Your task to perform on an android device: Is it going to rain this weekend? Image 0: 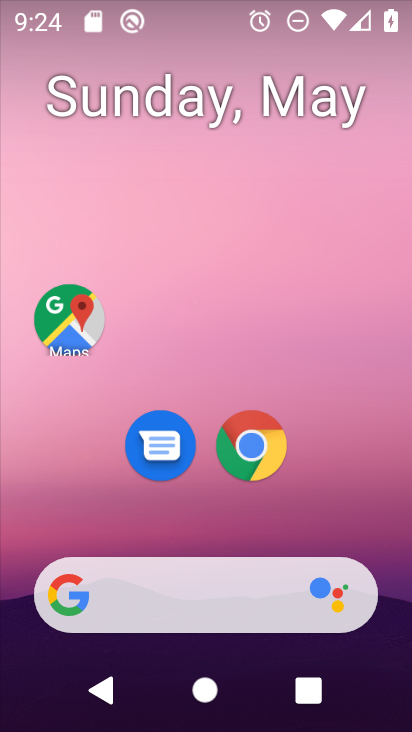
Step 0: drag from (353, 531) to (334, 292)
Your task to perform on an android device: Is it going to rain this weekend? Image 1: 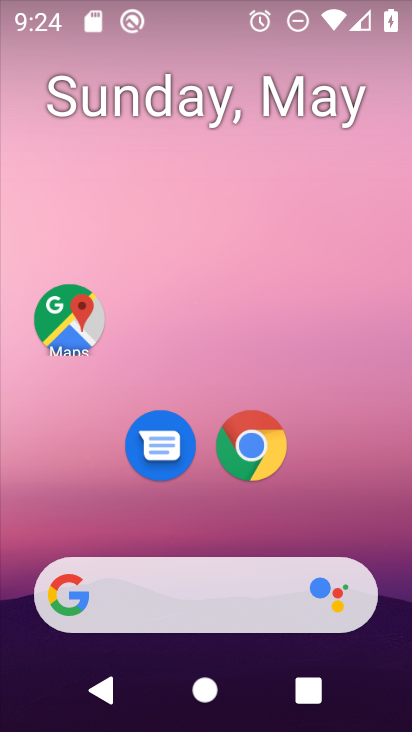
Step 1: drag from (297, 597) to (307, 247)
Your task to perform on an android device: Is it going to rain this weekend? Image 2: 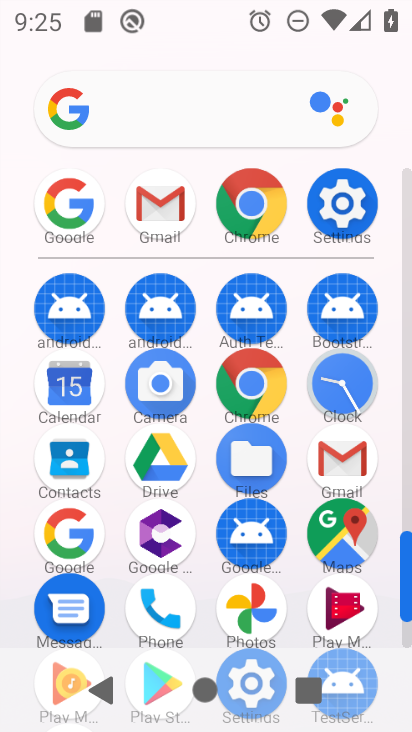
Step 2: click (89, 544)
Your task to perform on an android device: Is it going to rain this weekend? Image 3: 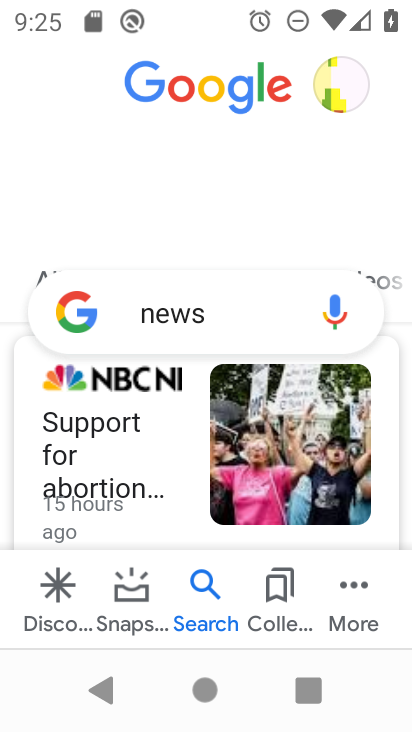
Step 3: click (244, 325)
Your task to perform on an android device: Is it going to rain this weekend? Image 4: 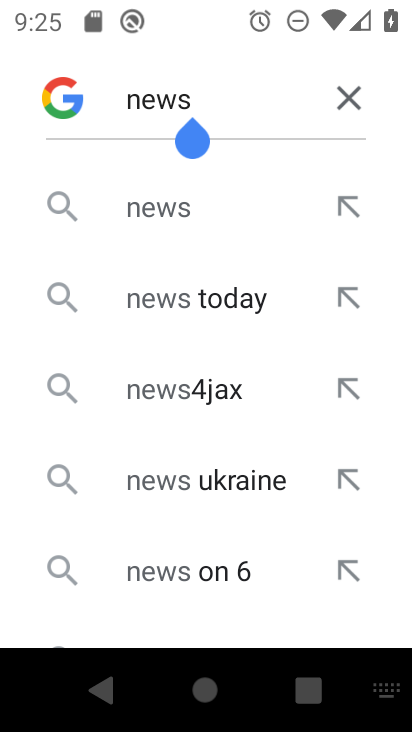
Step 4: click (350, 99)
Your task to perform on an android device: Is it going to rain this weekend? Image 5: 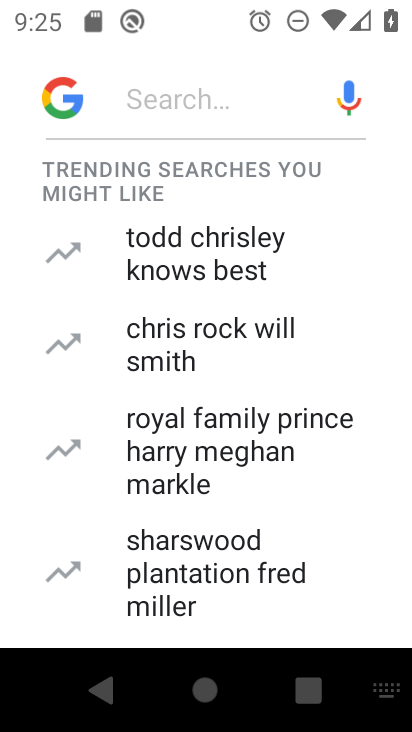
Step 5: type "weather"
Your task to perform on an android device: Is it going to rain this weekend? Image 6: 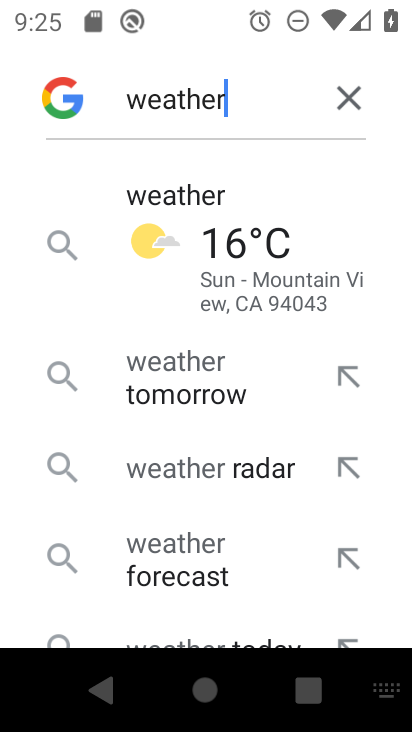
Step 6: click (262, 279)
Your task to perform on an android device: Is it going to rain this weekend? Image 7: 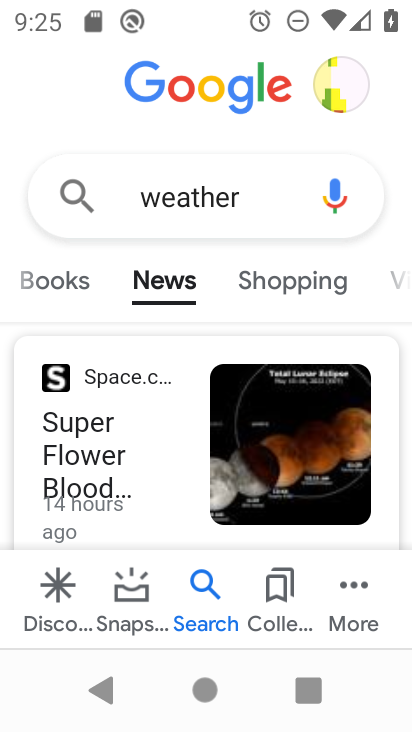
Step 7: drag from (115, 302) to (369, 281)
Your task to perform on an android device: Is it going to rain this weekend? Image 8: 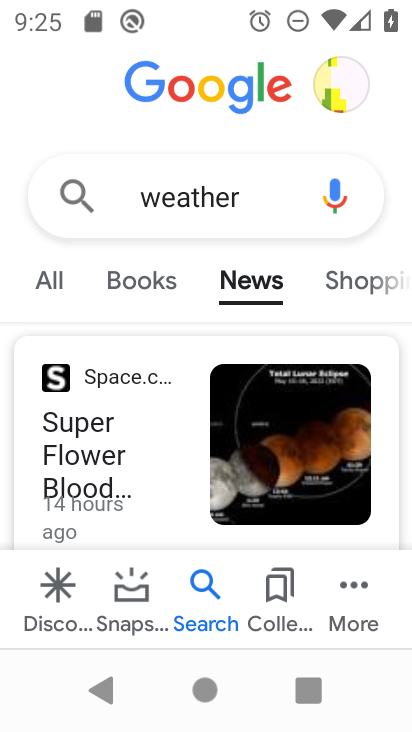
Step 8: click (51, 291)
Your task to perform on an android device: Is it going to rain this weekend? Image 9: 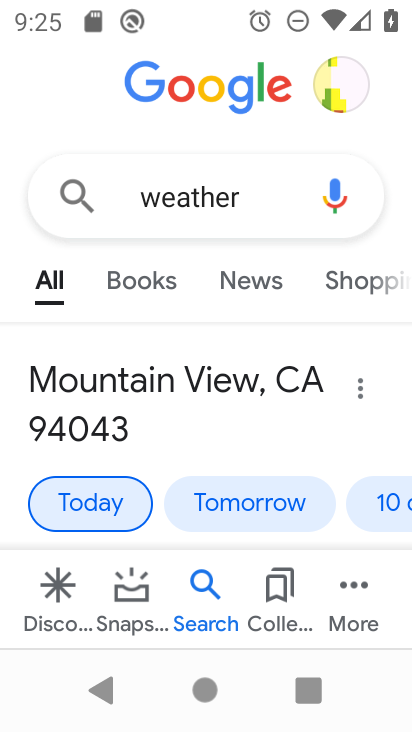
Step 9: click (395, 517)
Your task to perform on an android device: Is it going to rain this weekend? Image 10: 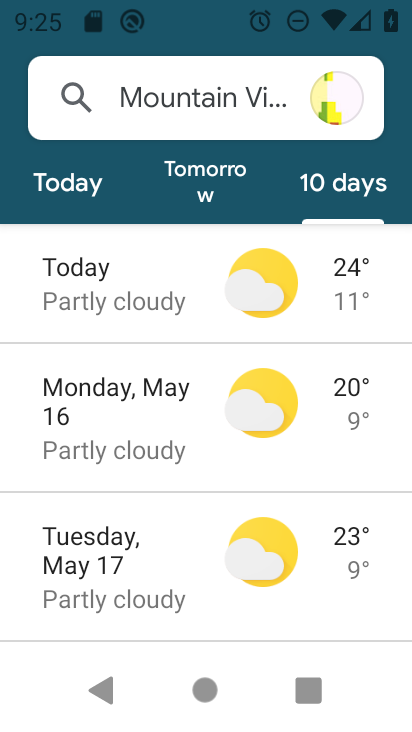
Step 10: task complete